Your task to perform on an android device: visit the assistant section in the google photos Image 0: 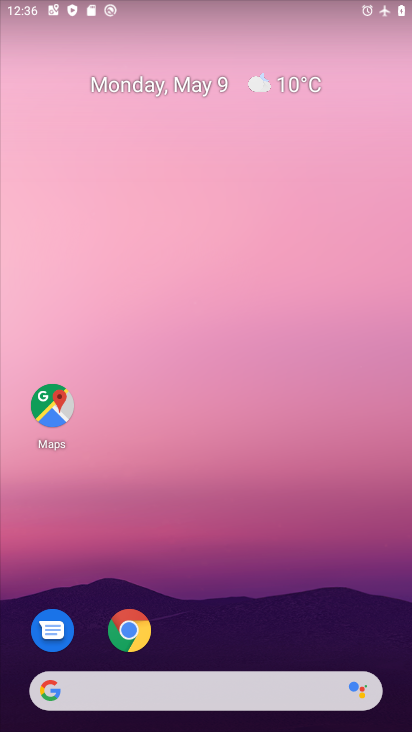
Step 0: drag from (347, 605) to (261, 167)
Your task to perform on an android device: visit the assistant section in the google photos Image 1: 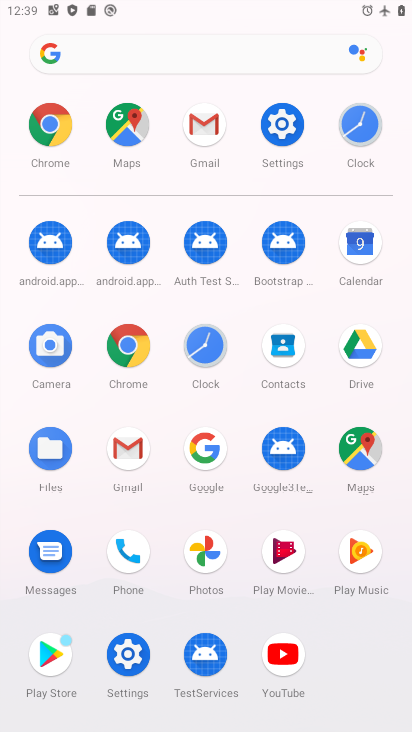
Step 1: click (205, 540)
Your task to perform on an android device: visit the assistant section in the google photos Image 2: 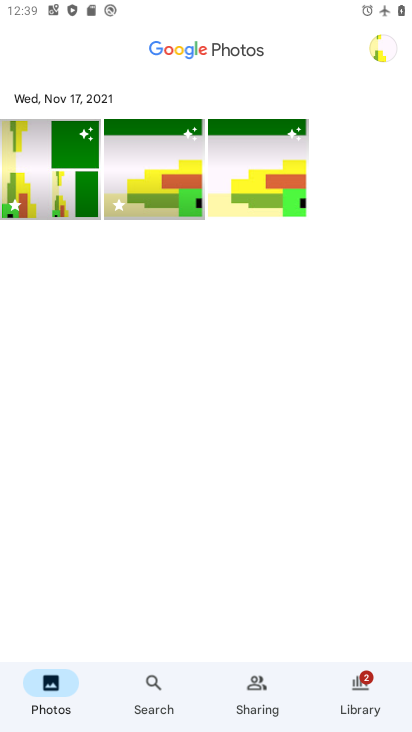
Step 2: task complete